Your task to perform on an android device: empty trash in the gmail app Image 0: 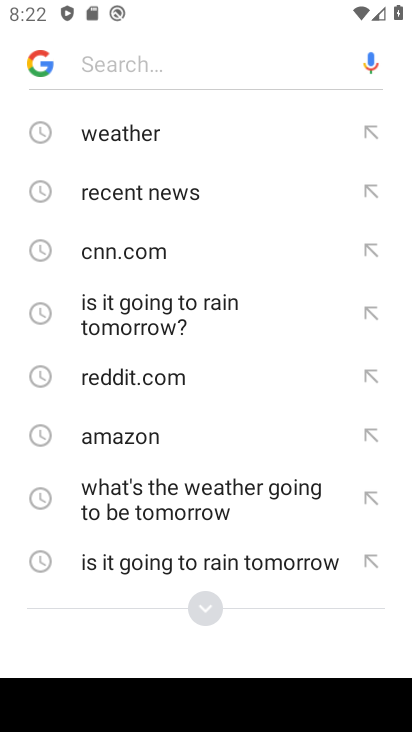
Step 0: press back button
Your task to perform on an android device: empty trash in the gmail app Image 1: 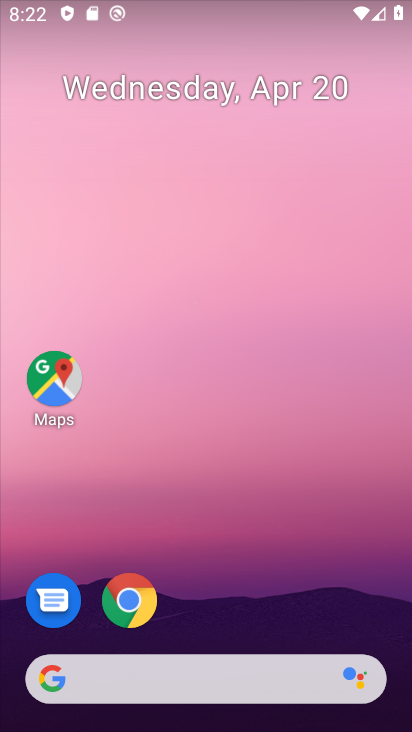
Step 1: drag from (183, 658) to (294, 30)
Your task to perform on an android device: empty trash in the gmail app Image 2: 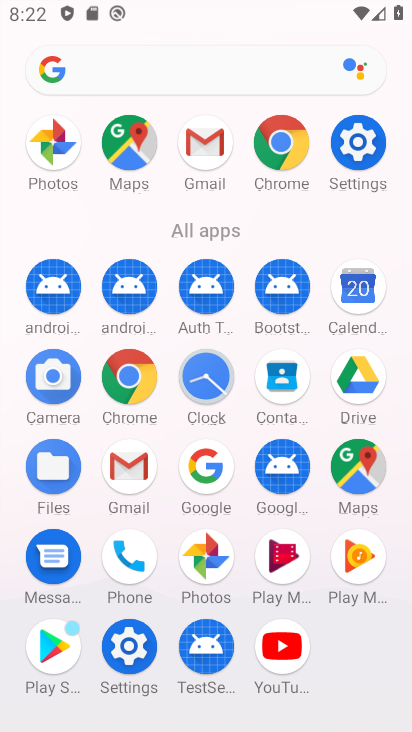
Step 2: click (125, 480)
Your task to perform on an android device: empty trash in the gmail app Image 3: 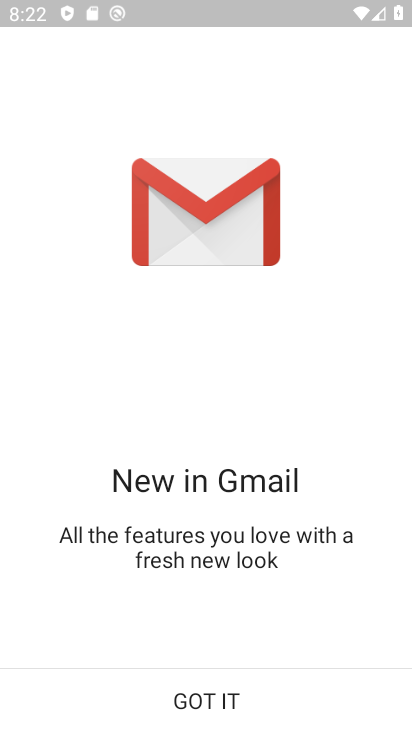
Step 3: click (235, 710)
Your task to perform on an android device: empty trash in the gmail app Image 4: 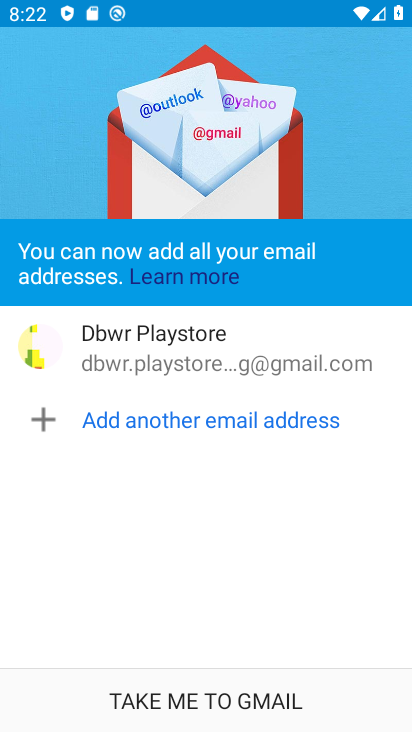
Step 4: click (235, 709)
Your task to perform on an android device: empty trash in the gmail app Image 5: 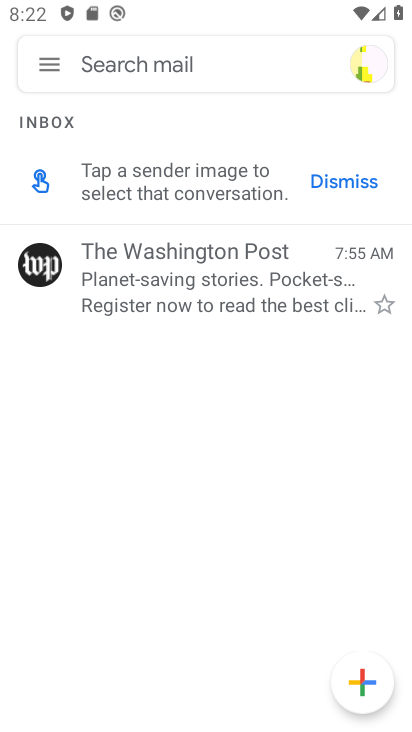
Step 5: click (58, 71)
Your task to perform on an android device: empty trash in the gmail app Image 6: 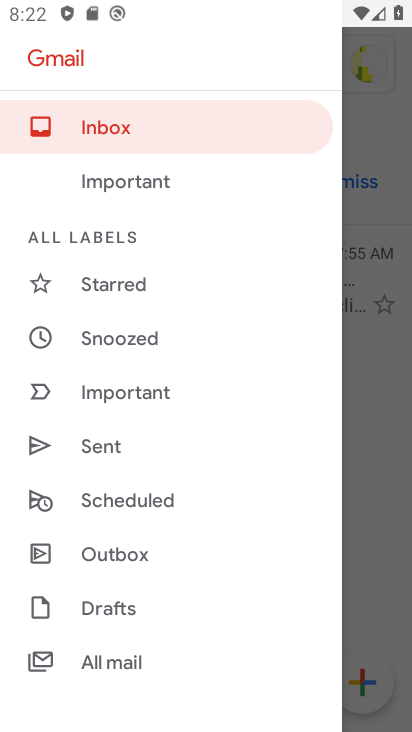
Step 6: drag from (126, 665) to (186, 382)
Your task to perform on an android device: empty trash in the gmail app Image 7: 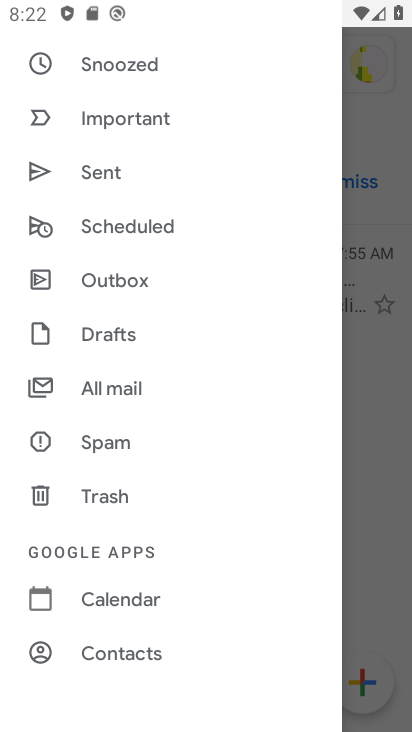
Step 7: click (129, 483)
Your task to perform on an android device: empty trash in the gmail app Image 8: 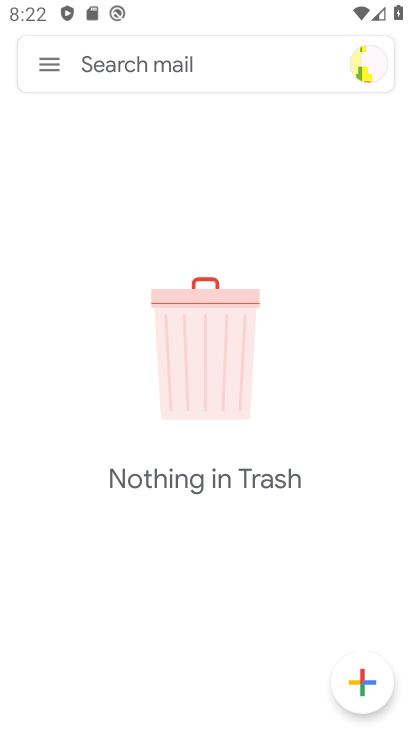
Step 8: task complete